Your task to perform on an android device: turn off notifications in google photos Image 0: 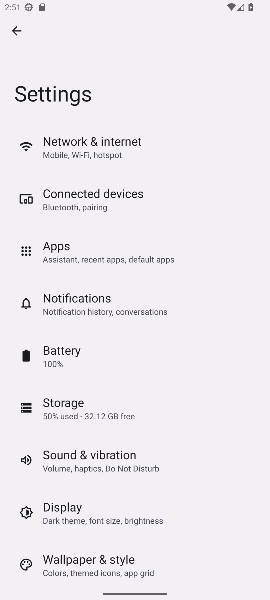
Step 0: press home button
Your task to perform on an android device: turn off notifications in google photos Image 1: 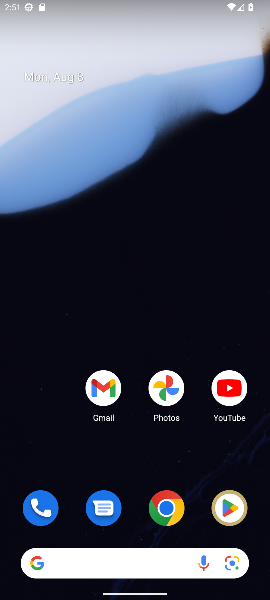
Step 1: click (171, 385)
Your task to perform on an android device: turn off notifications in google photos Image 2: 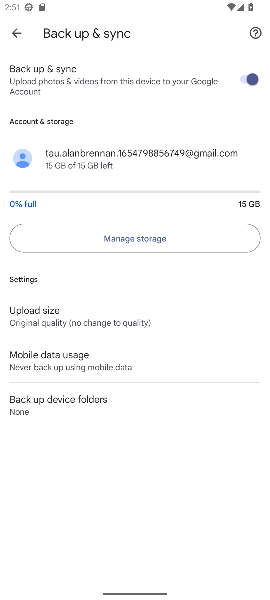
Step 2: click (18, 32)
Your task to perform on an android device: turn off notifications in google photos Image 3: 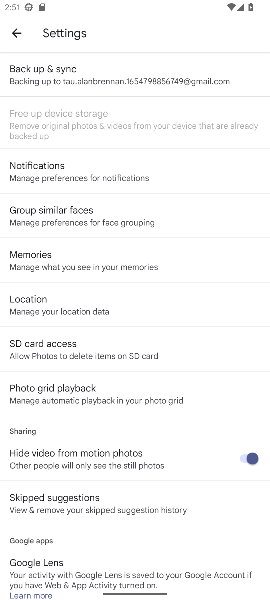
Step 3: click (41, 164)
Your task to perform on an android device: turn off notifications in google photos Image 4: 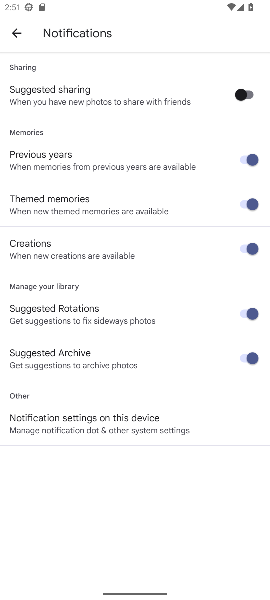
Step 4: click (84, 418)
Your task to perform on an android device: turn off notifications in google photos Image 5: 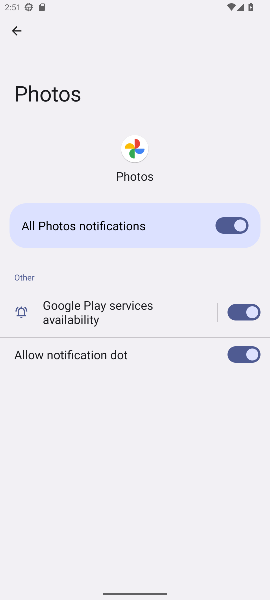
Step 5: click (228, 225)
Your task to perform on an android device: turn off notifications in google photos Image 6: 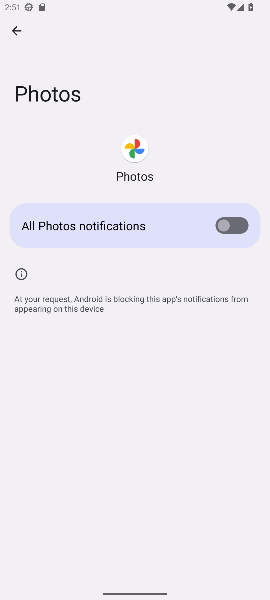
Step 6: task complete